Your task to perform on an android device: Go to CNN.com Image 0: 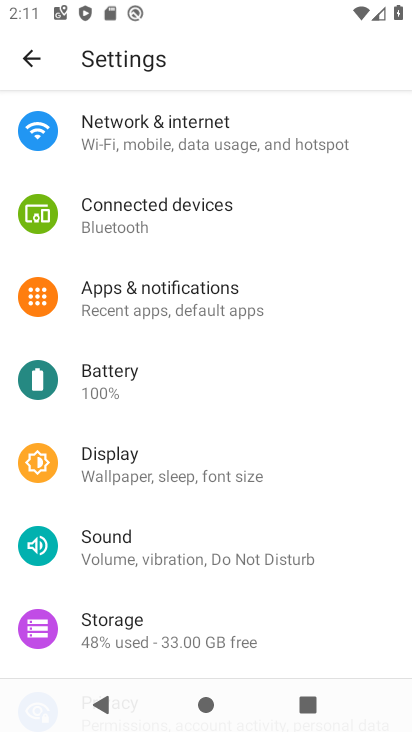
Step 0: press home button
Your task to perform on an android device: Go to CNN.com Image 1: 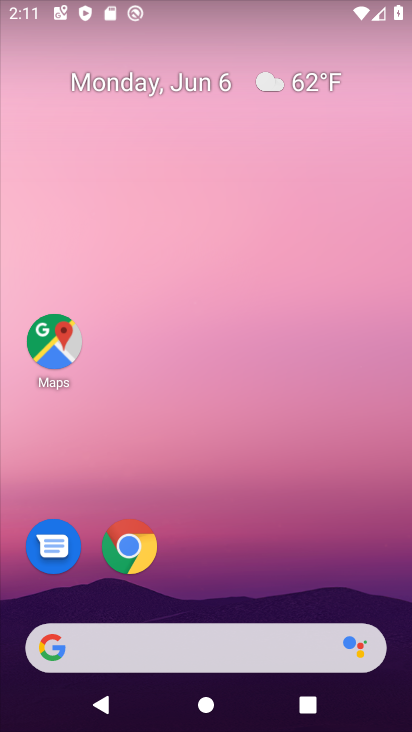
Step 1: click (133, 560)
Your task to perform on an android device: Go to CNN.com Image 2: 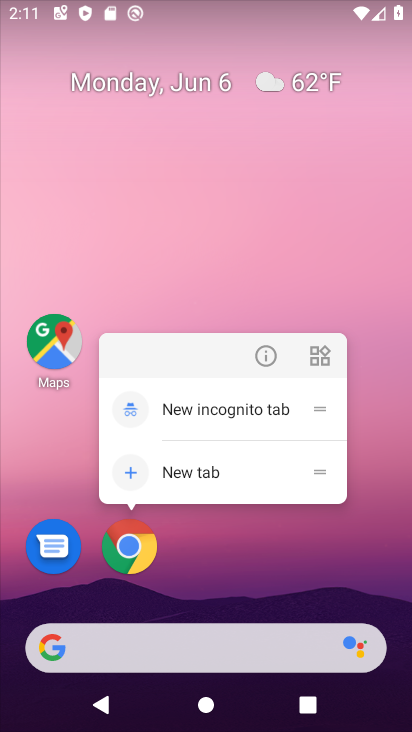
Step 2: click (129, 555)
Your task to perform on an android device: Go to CNN.com Image 3: 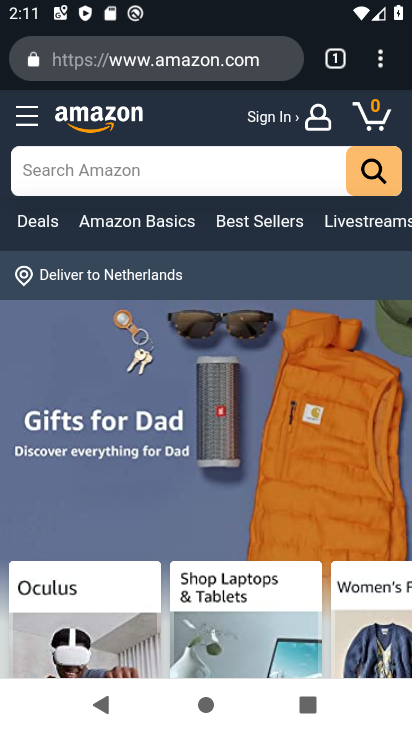
Step 3: click (213, 56)
Your task to perform on an android device: Go to CNN.com Image 4: 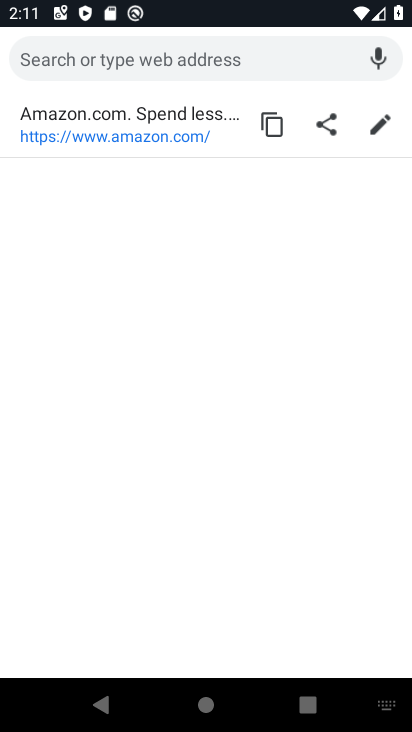
Step 4: type "cnn.com"
Your task to perform on an android device: Go to CNN.com Image 5: 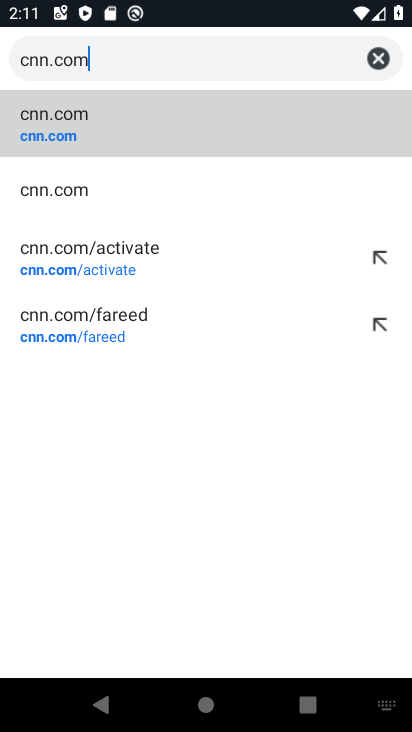
Step 5: click (56, 129)
Your task to perform on an android device: Go to CNN.com Image 6: 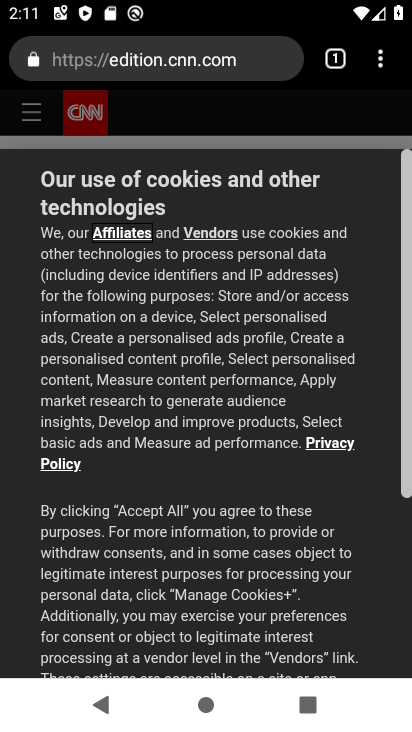
Step 6: task complete